Your task to perform on an android device: Search for Mexican restaurants on Maps Image 0: 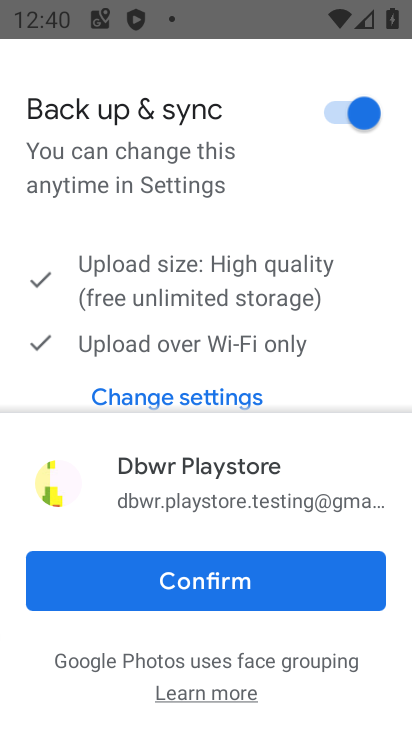
Step 0: press home button
Your task to perform on an android device: Search for Mexican restaurants on Maps Image 1: 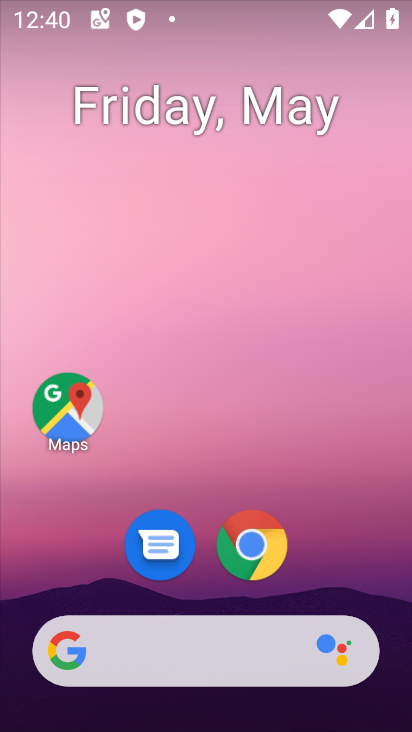
Step 1: click (59, 438)
Your task to perform on an android device: Search for Mexican restaurants on Maps Image 2: 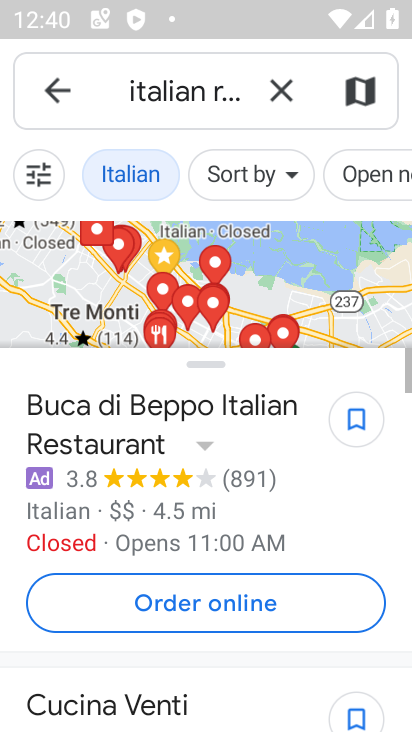
Step 2: click (290, 97)
Your task to perform on an android device: Search for Mexican restaurants on Maps Image 3: 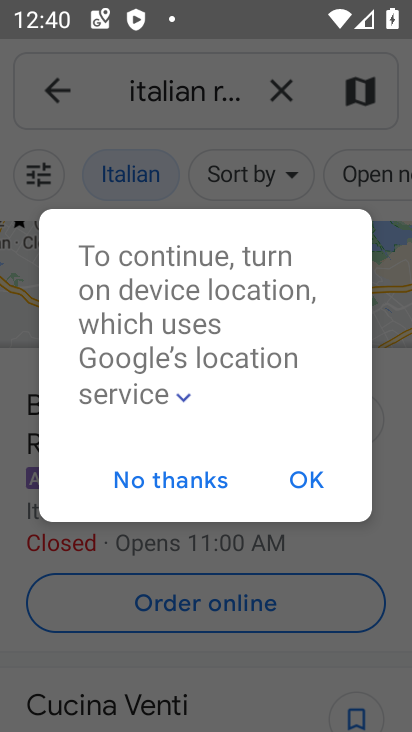
Step 3: click (314, 477)
Your task to perform on an android device: Search for Mexican restaurants on Maps Image 4: 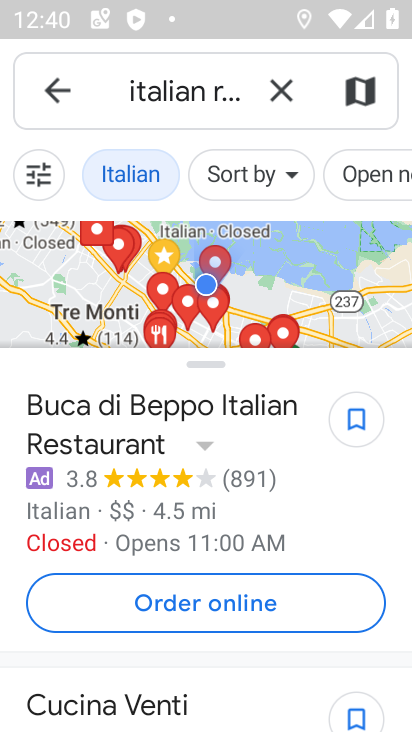
Step 4: click (277, 81)
Your task to perform on an android device: Search for Mexican restaurants on Maps Image 5: 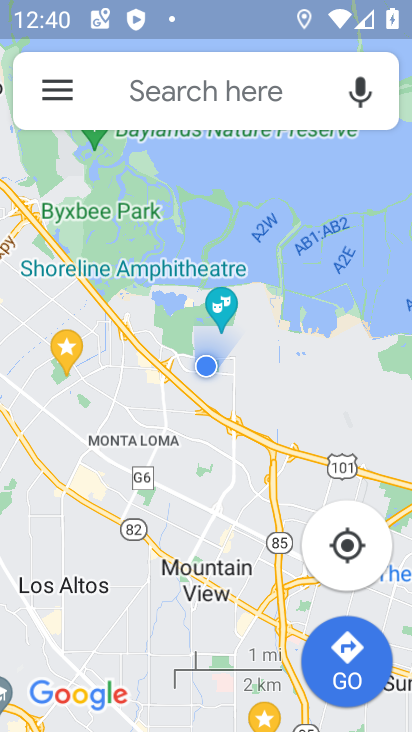
Step 5: click (228, 102)
Your task to perform on an android device: Search for Mexican restaurants on Maps Image 6: 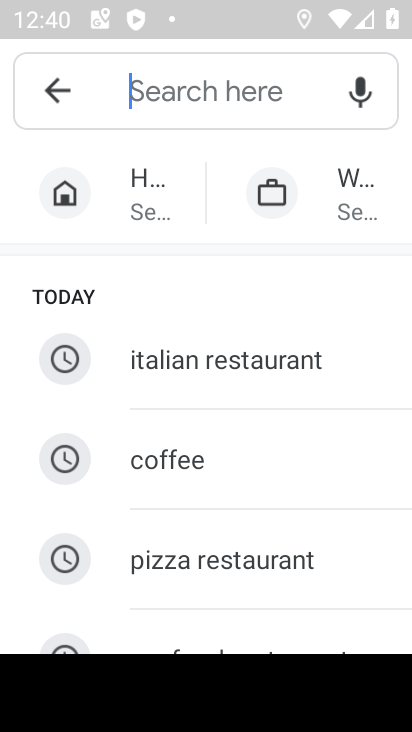
Step 6: drag from (243, 476) to (287, 190)
Your task to perform on an android device: Search for Mexican restaurants on Maps Image 7: 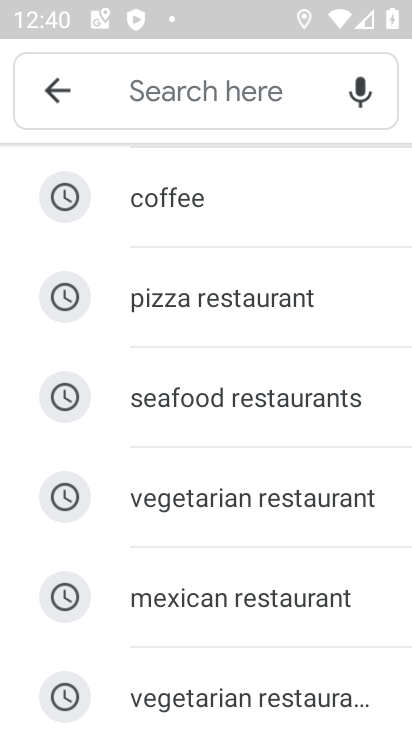
Step 7: drag from (307, 508) to (313, 179)
Your task to perform on an android device: Search for Mexican restaurants on Maps Image 8: 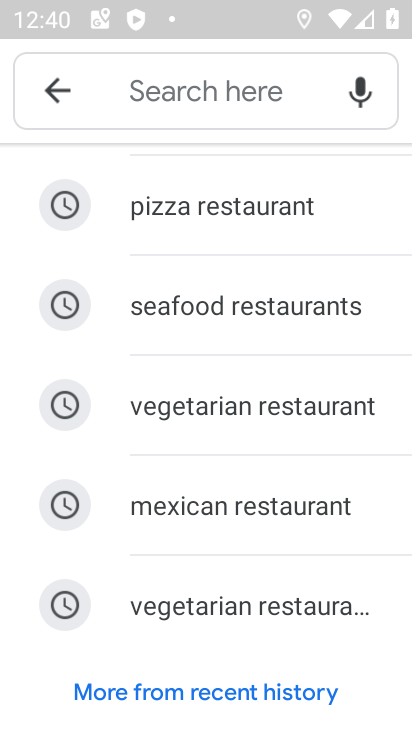
Step 8: click (227, 500)
Your task to perform on an android device: Search for Mexican restaurants on Maps Image 9: 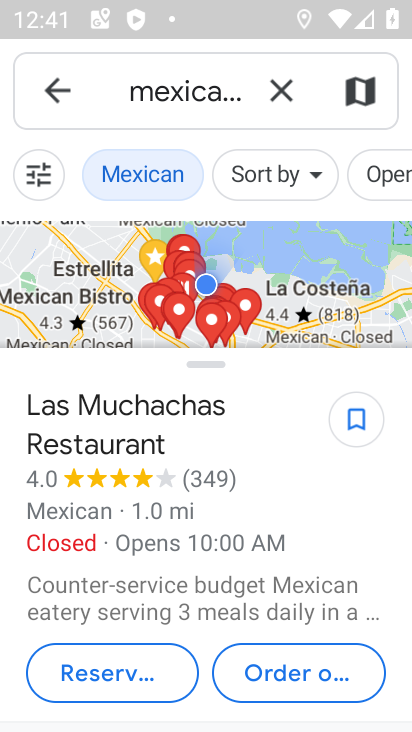
Step 9: task complete